Your task to perform on an android device: change the clock display to digital Image 0: 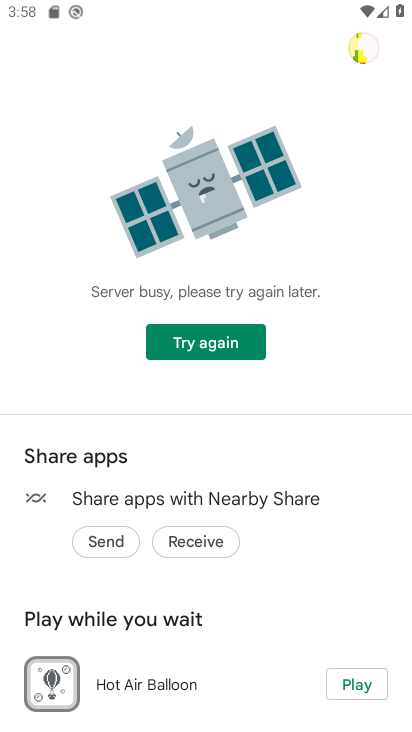
Step 0: press home button
Your task to perform on an android device: change the clock display to digital Image 1: 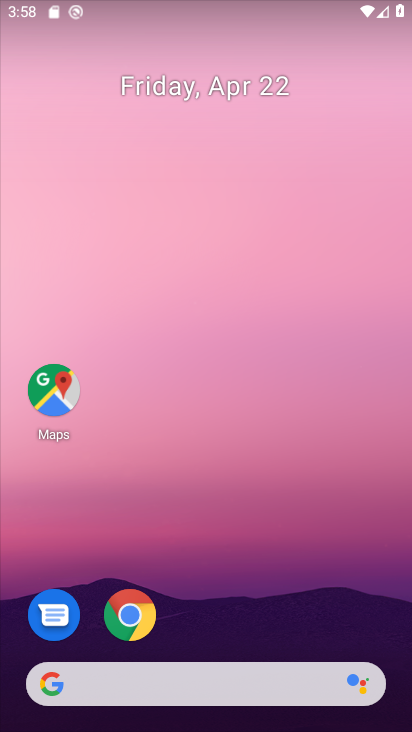
Step 1: drag from (291, 577) to (355, 253)
Your task to perform on an android device: change the clock display to digital Image 2: 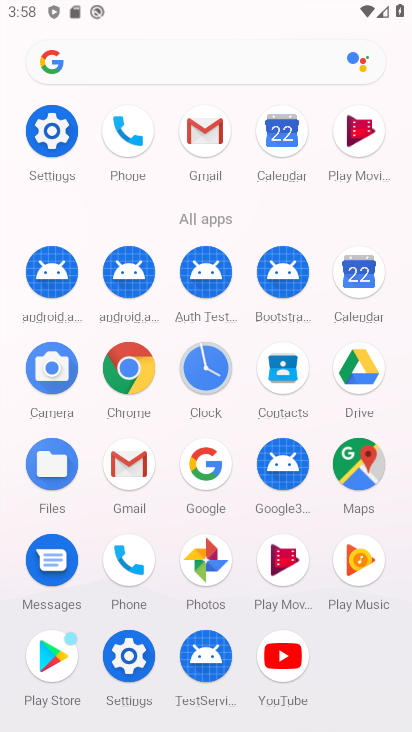
Step 2: click (210, 379)
Your task to perform on an android device: change the clock display to digital Image 3: 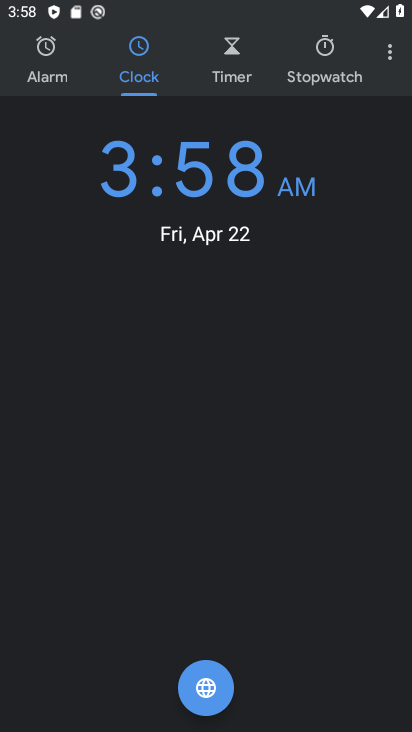
Step 3: click (390, 61)
Your task to perform on an android device: change the clock display to digital Image 4: 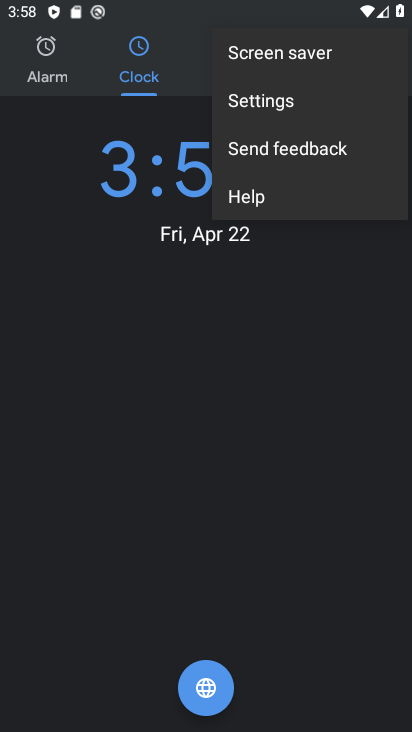
Step 4: click (332, 101)
Your task to perform on an android device: change the clock display to digital Image 5: 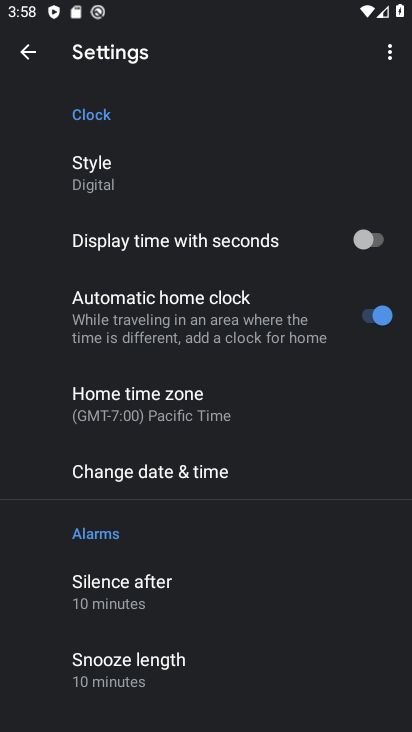
Step 5: task complete